Your task to perform on an android device: Open wifi settings Image 0: 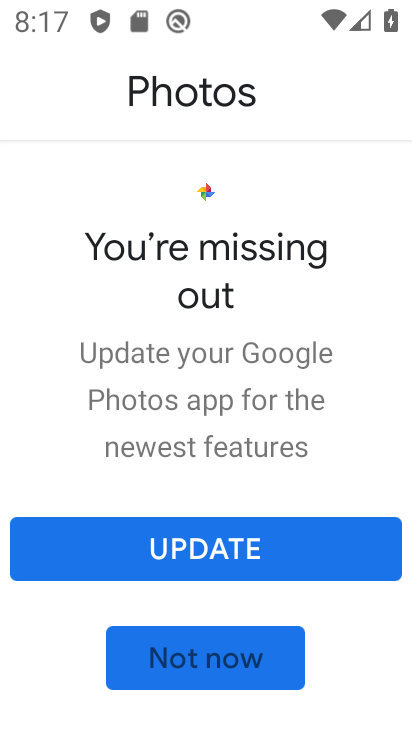
Step 0: press home button
Your task to perform on an android device: Open wifi settings Image 1: 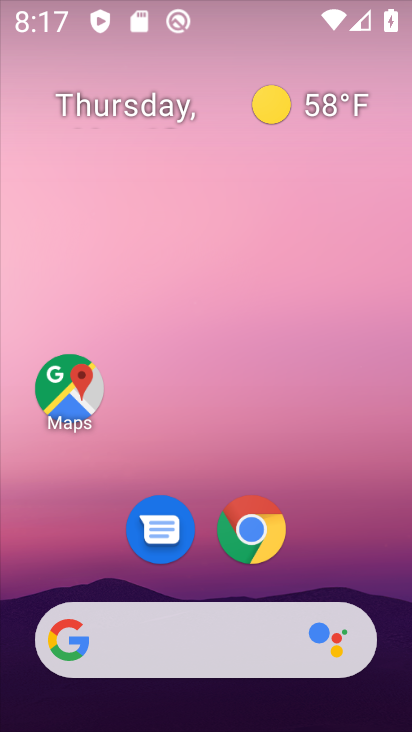
Step 1: drag from (199, 573) to (211, 119)
Your task to perform on an android device: Open wifi settings Image 2: 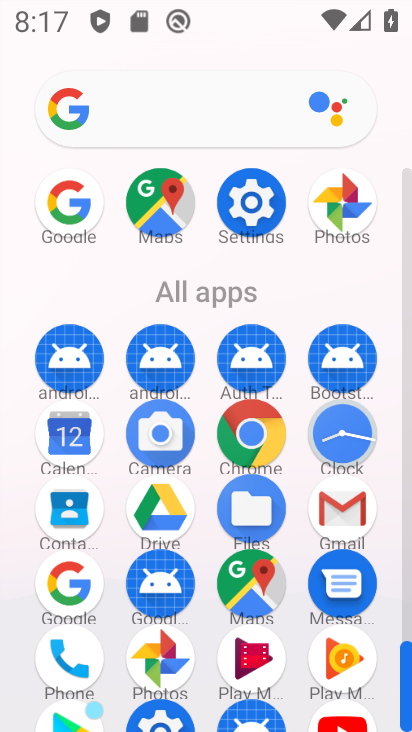
Step 2: click (253, 206)
Your task to perform on an android device: Open wifi settings Image 3: 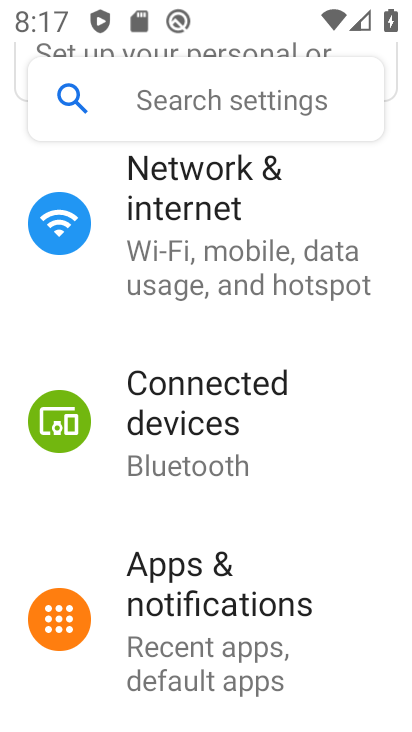
Step 3: click (234, 187)
Your task to perform on an android device: Open wifi settings Image 4: 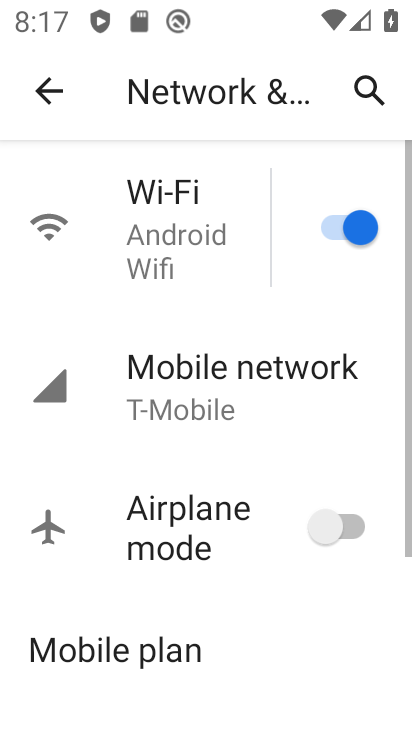
Step 4: click (234, 187)
Your task to perform on an android device: Open wifi settings Image 5: 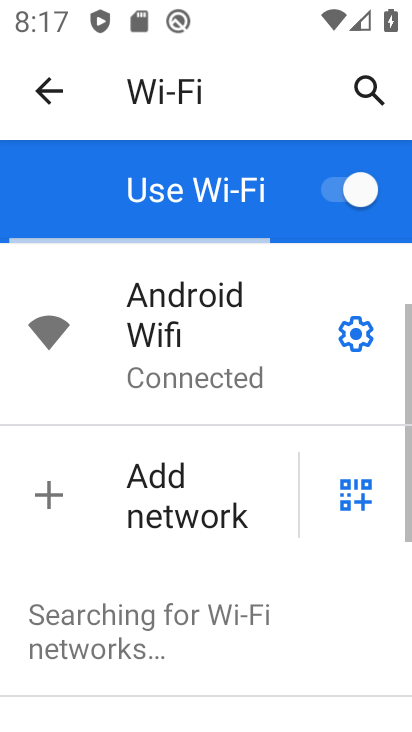
Step 5: click (333, 333)
Your task to perform on an android device: Open wifi settings Image 6: 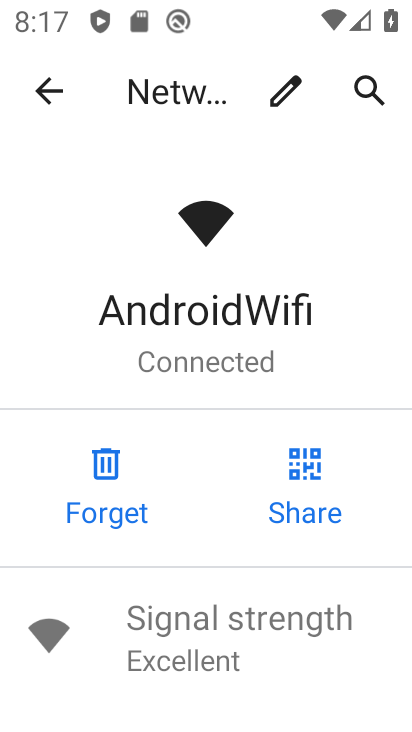
Step 6: task complete